Your task to perform on an android device: open chrome privacy settings Image 0: 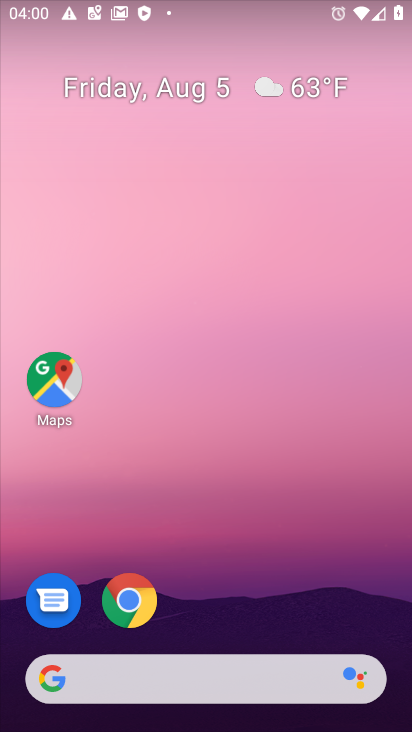
Step 0: click (131, 600)
Your task to perform on an android device: open chrome privacy settings Image 1: 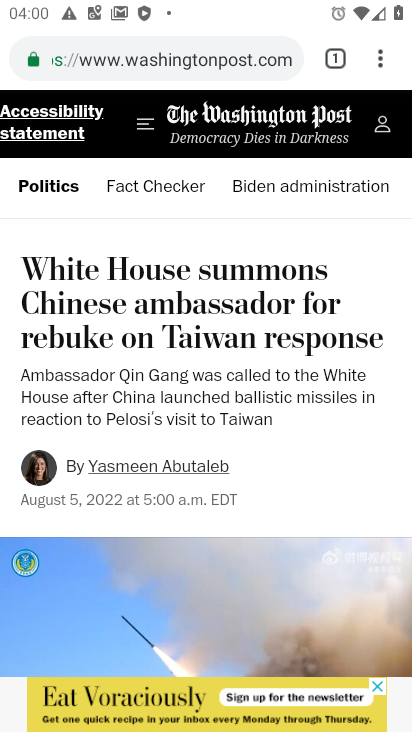
Step 1: click (381, 57)
Your task to perform on an android device: open chrome privacy settings Image 2: 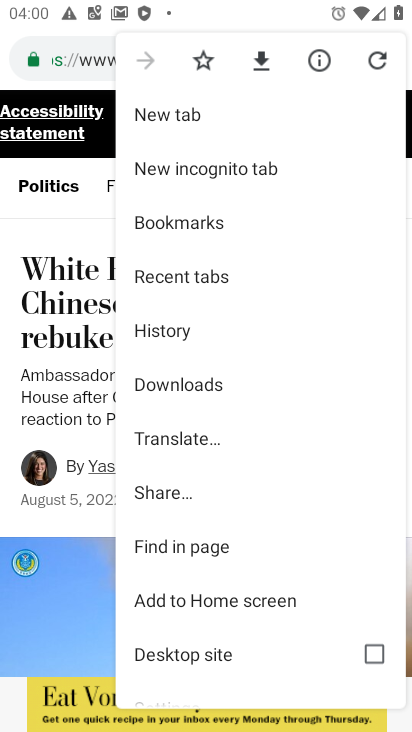
Step 2: drag from (167, 471) to (187, 368)
Your task to perform on an android device: open chrome privacy settings Image 3: 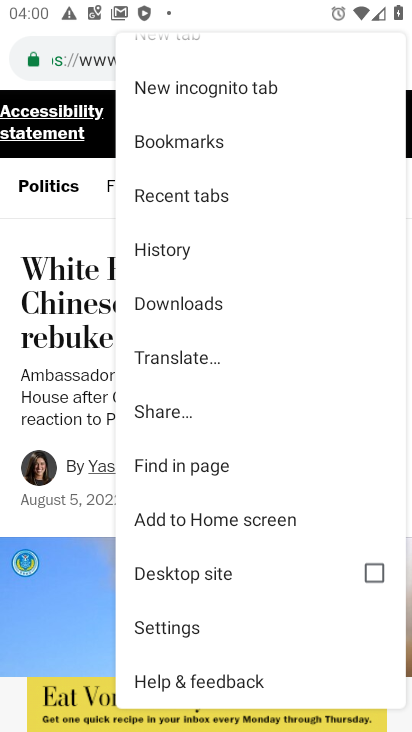
Step 3: click (163, 623)
Your task to perform on an android device: open chrome privacy settings Image 4: 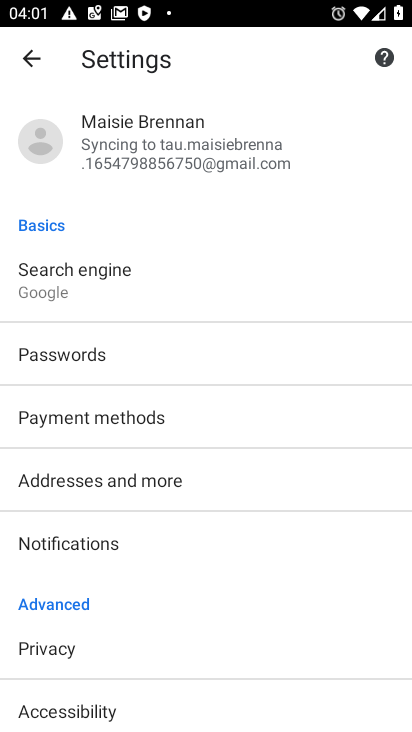
Step 4: drag from (109, 560) to (156, 450)
Your task to perform on an android device: open chrome privacy settings Image 5: 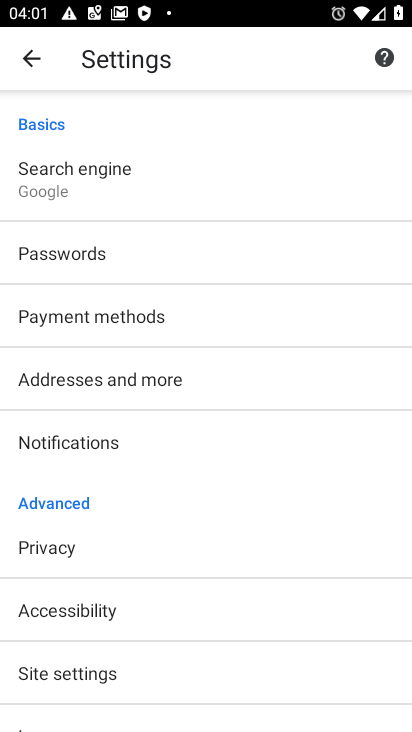
Step 5: click (52, 554)
Your task to perform on an android device: open chrome privacy settings Image 6: 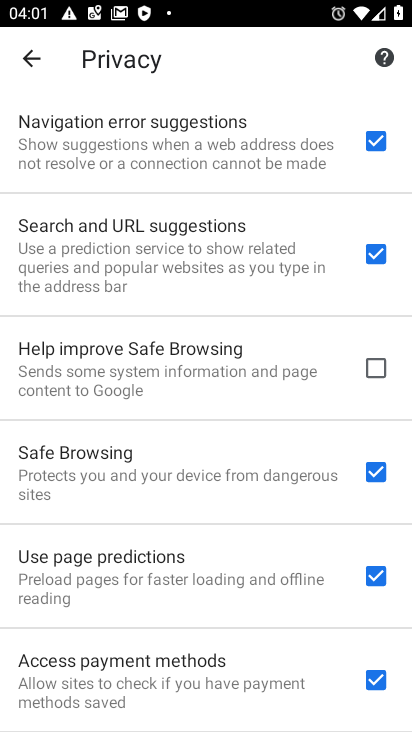
Step 6: task complete